Your task to perform on an android device: turn off airplane mode Image 0: 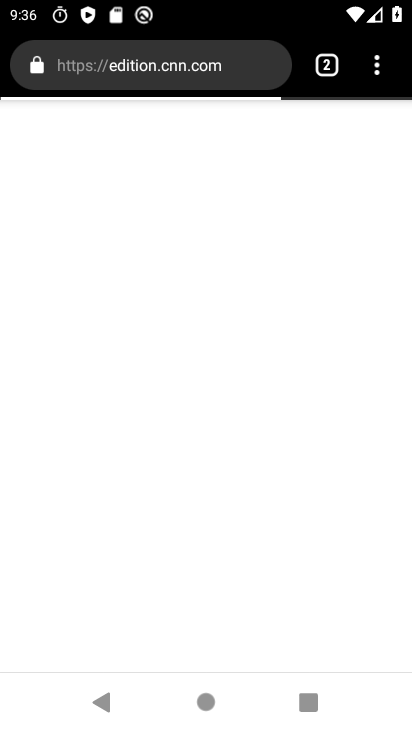
Step 0: press home button
Your task to perform on an android device: turn off airplane mode Image 1: 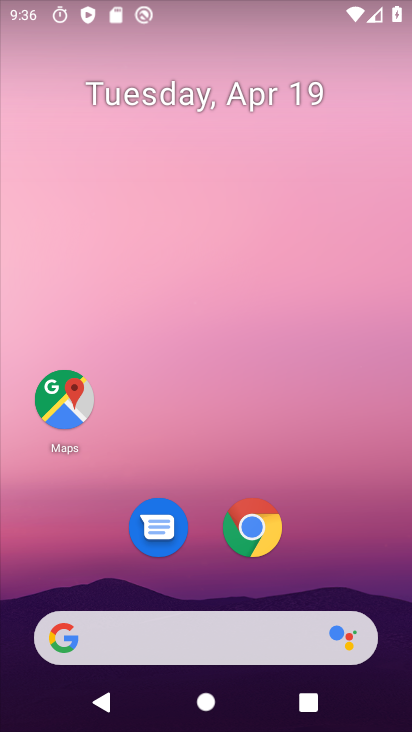
Step 1: drag from (240, 664) to (288, 215)
Your task to perform on an android device: turn off airplane mode Image 2: 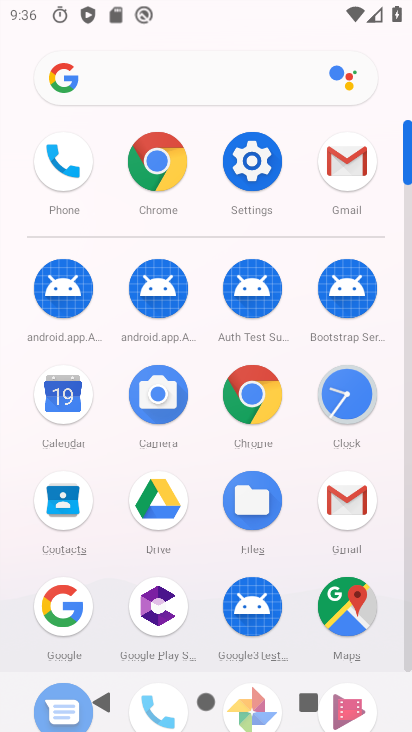
Step 2: click (255, 171)
Your task to perform on an android device: turn off airplane mode Image 3: 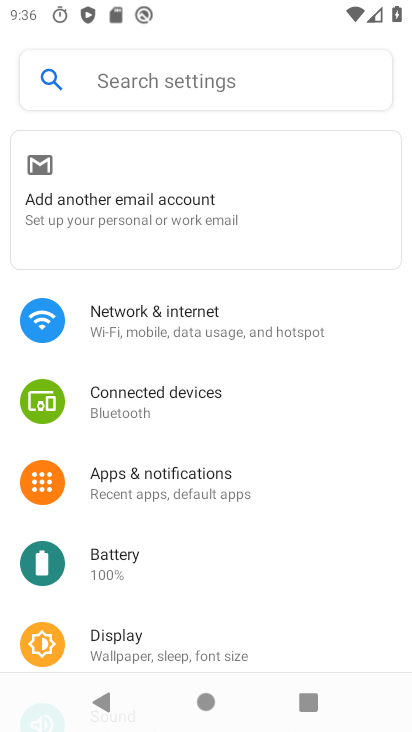
Step 3: click (179, 329)
Your task to perform on an android device: turn off airplane mode Image 4: 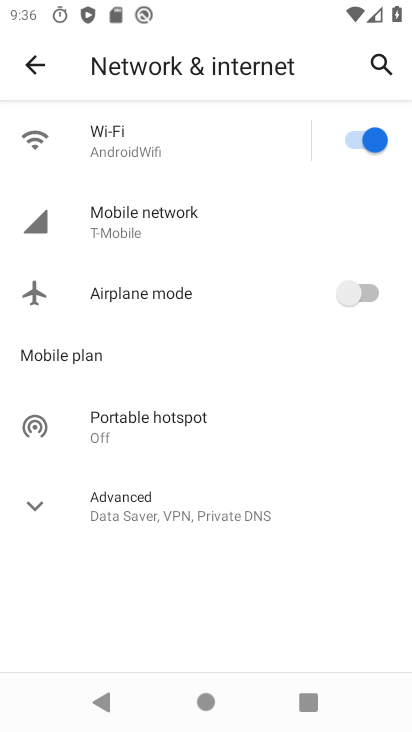
Step 4: click (205, 297)
Your task to perform on an android device: turn off airplane mode Image 5: 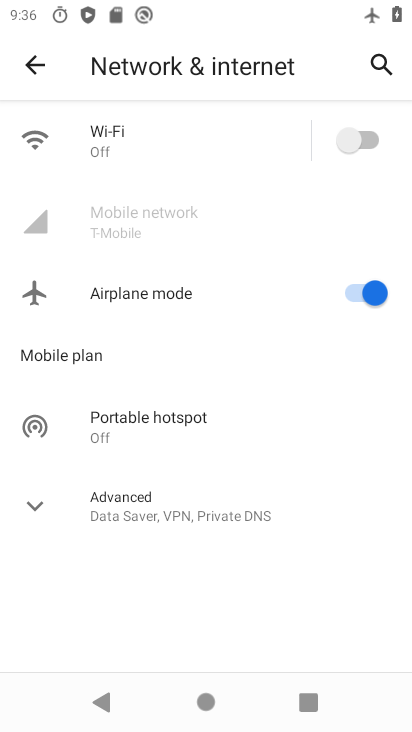
Step 5: click (205, 297)
Your task to perform on an android device: turn off airplane mode Image 6: 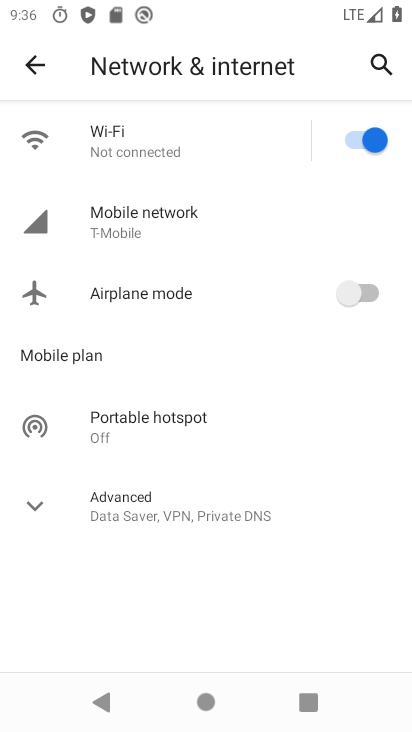
Step 6: task complete